Your task to perform on an android device: star an email in the gmail app Image 0: 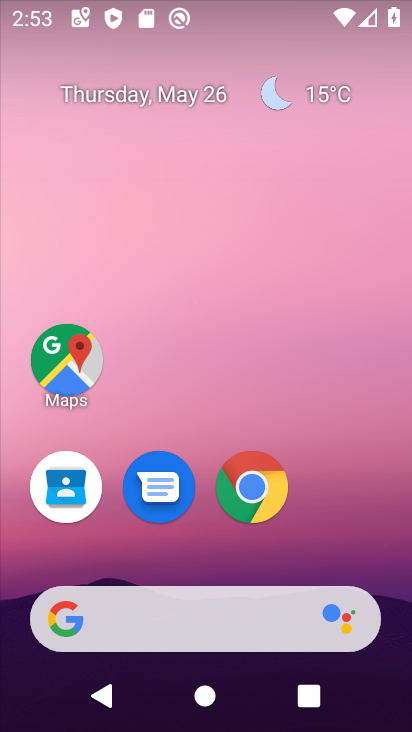
Step 0: drag from (212, 540) to (254, 217)
Your task to perform on an android device: star an email in the gmail app Image 1: 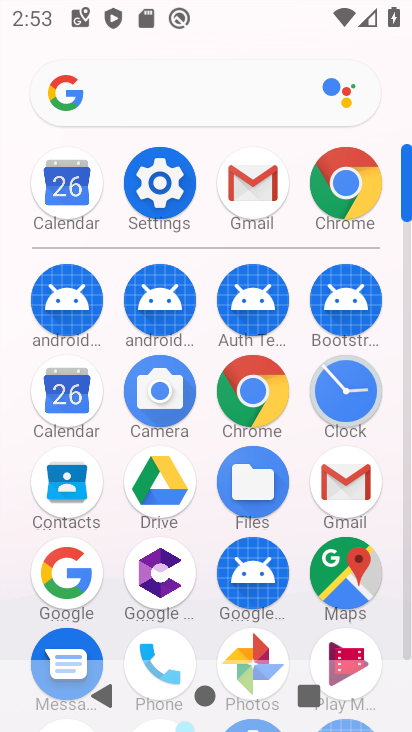
Step 1: click (254, 217)
Your task to perform on an android device: star an email in the gmail app Image 2: 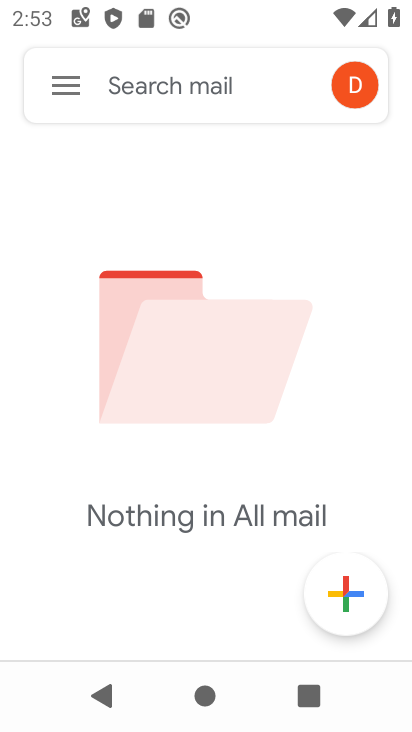
Step 2: click (82, 103)
Your task to perform on an android device: star an email in the gmail app Image 3: 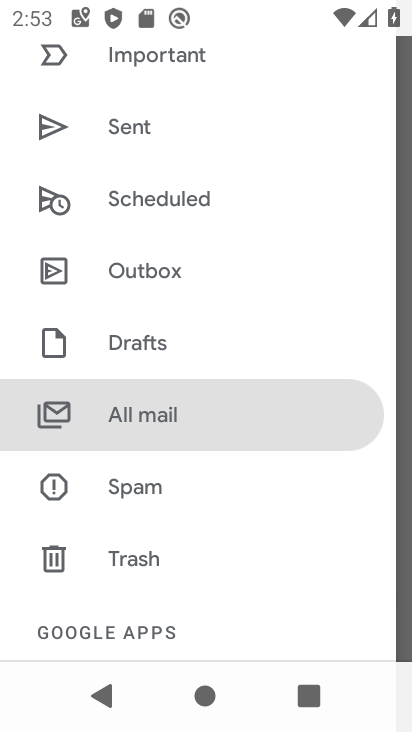
Step 3: click (157, 409)
Your task to perform on an android device: star an email in the gmail app Image 4: 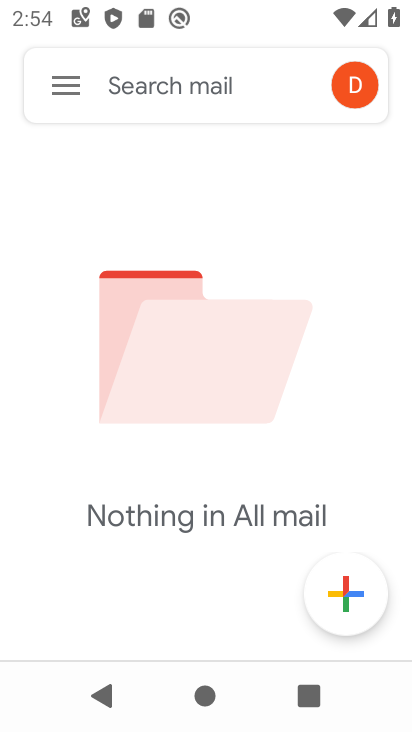
Step 4: task complete